Your task to perform on an android device: turn on the 12-hour format for clock Image 0: 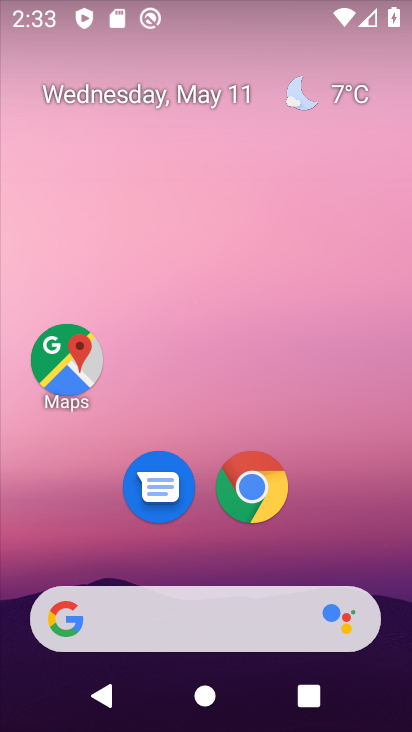
Step 0: drag from (285, 583) to (336, 9)
Your task to perform on an android device: turn on the 12-hour format for clock Image 1: 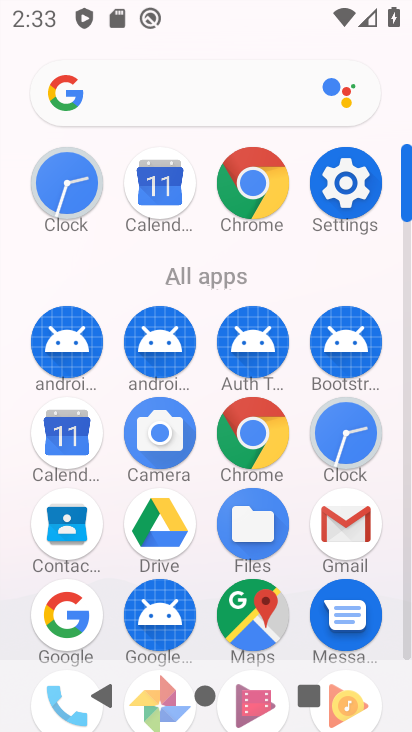
Step 1: click (341, 441)
Your task to perform on an android device: turn on the 12-hour format for clock Image 2: 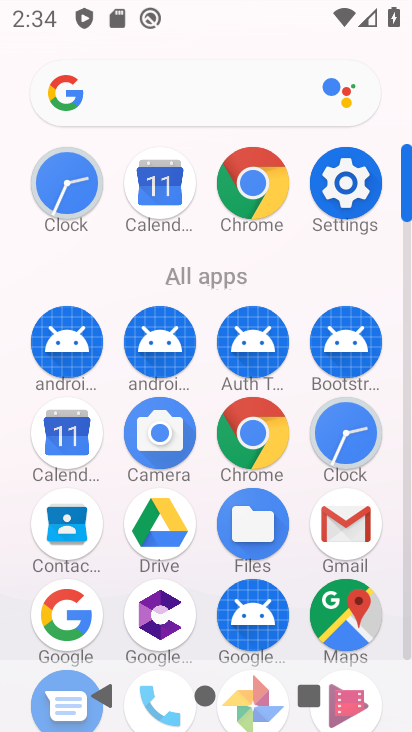
Step 2: click (353, 446)
Your task to perform on an android device: turn on the 12-hour format for clock Image 3: 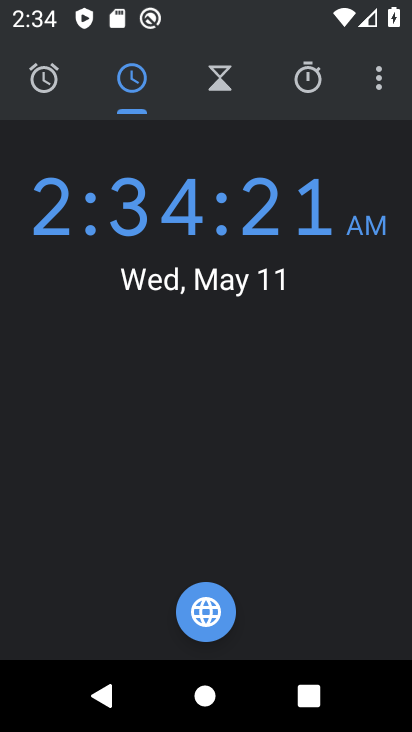
Step 3: click (368, 85)
Your task to perform on an android device: turn on the 12-hour format for clock Image 4: 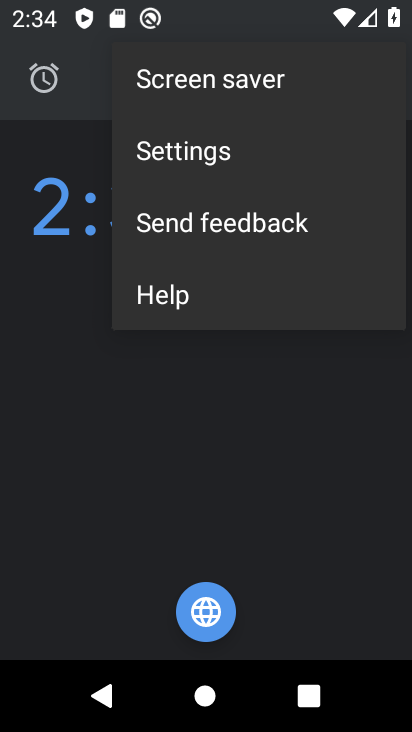
Step 4: click (259, 154)
Your task to perform on an android device: turn on the 12-hour format for clock Image 5: 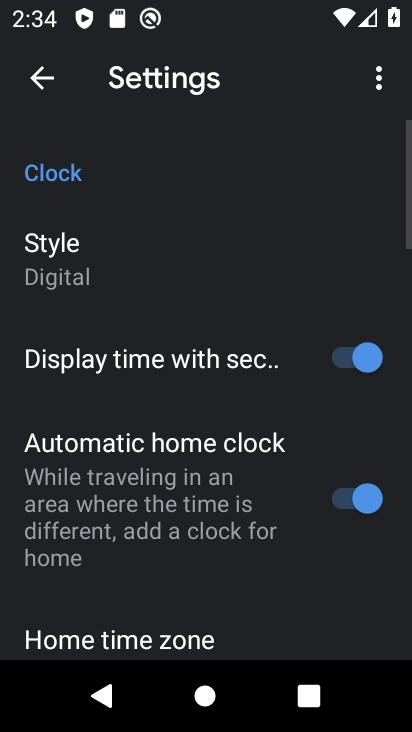
Step 5: drag from (278, 579) to (273, 146)
Your task to perform on an android device: turn on the 12-hour format for clock Image 6: 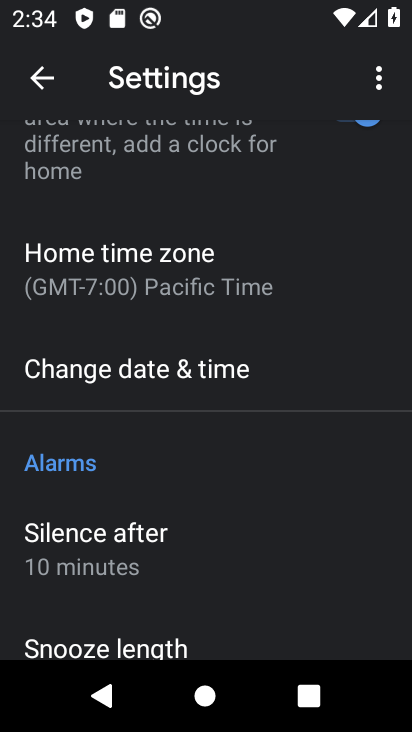
Step 6: click (235, 379)
Your task to perform on an android device: turn on the 12-hour format for clock Image 7: 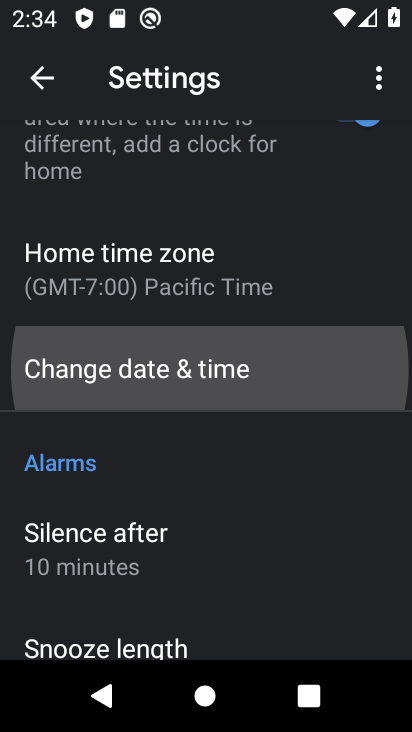
Step 7: click (235, 379)
Your task to perform on an android device: turn on the 12-hour format for clock Image 8: 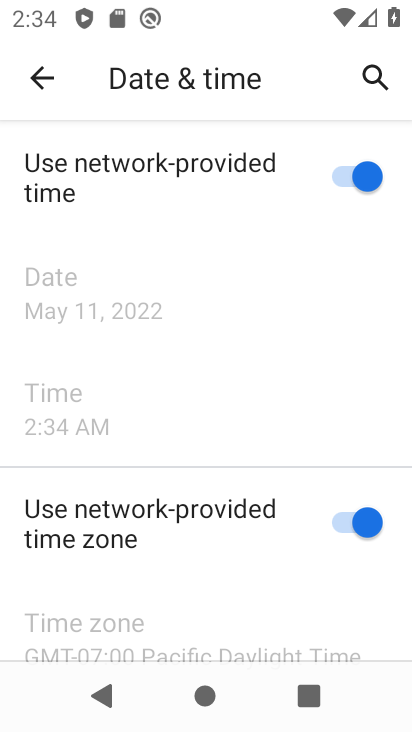
Step 8: drag from (298, 594) to (272, 93)
Your task to perform on an android device: turn on the 12-hour format for clock Image 9: 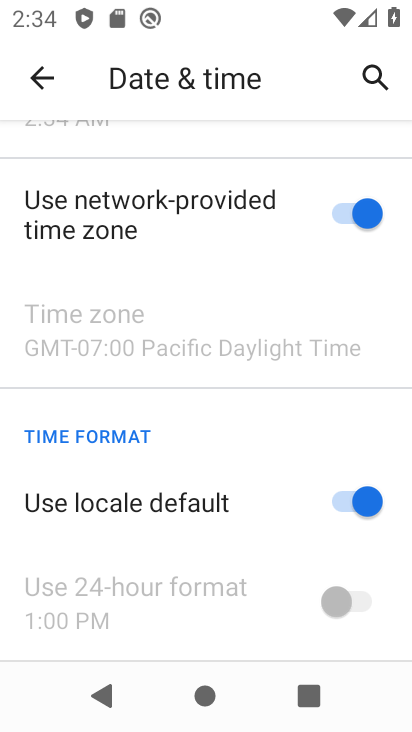
Step 9: drag from (217, 235) to (254, 656)
Your task to perform on an android device: turn on the 12-hour format for clock Image 10: 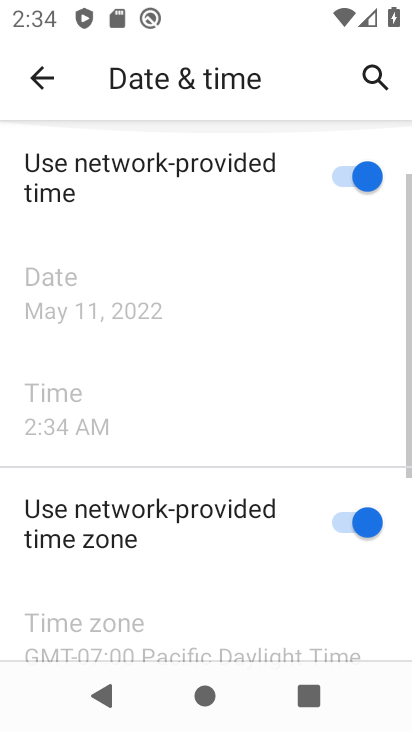
Step 10: drag from (241, 625) to (199, 132)
Your task to perform on an android device: turn on the 12-hour format for clock Image 11: 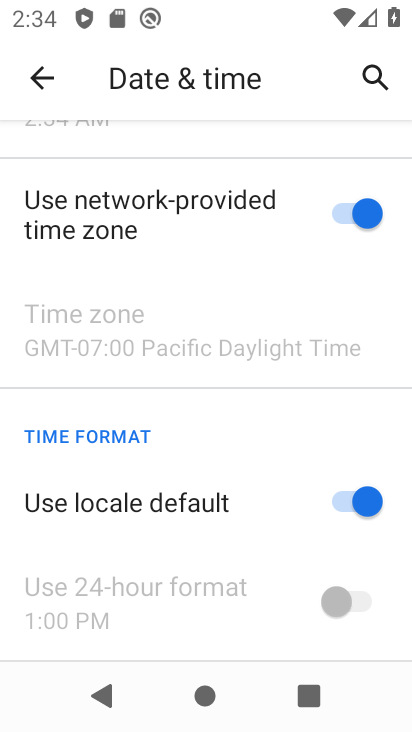
Step 11: click (340, 499)
Your task to perform on an android device: turn on the 12-hour format for clock Image 12: 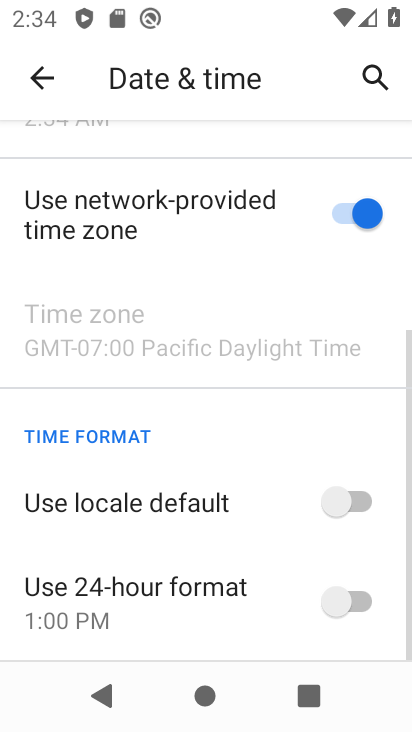
Step 12: task complete